Your task to perform on an android device: Search for the new steph curry shoes on Amazon. Image 0: 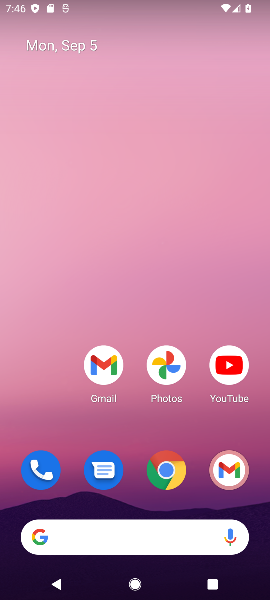
Step 0: click (114, 534)
Your task to perform on an android device: Search for the new steph curry shoes on Amazon. Image 1: 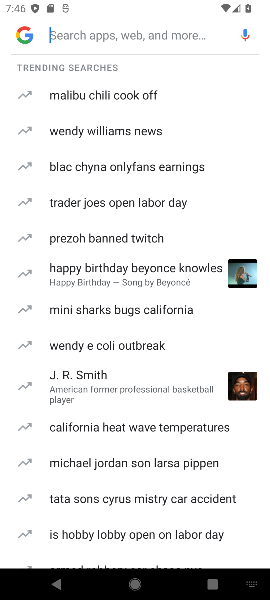
Step 1: type "amezon"
Your task to perform on an android device: Search for the new steph curry shoes on Amazon. Image 2: 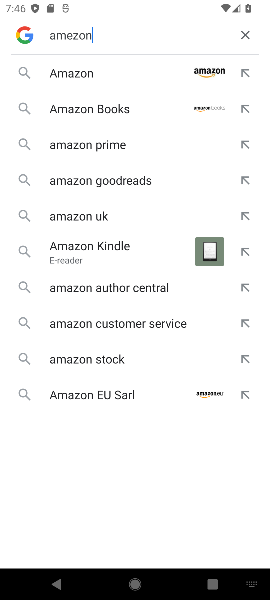
Step 2: click (67, 66)
Your task to perform on an android device: Search for the new steph curry shoes on Amazon. Image 3: 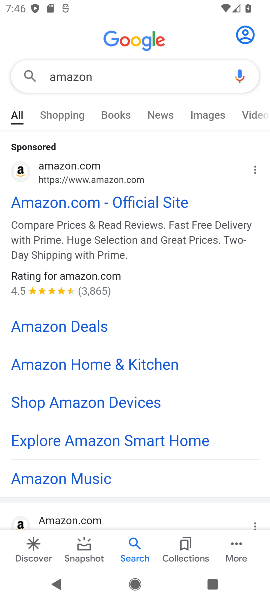
Step 3: click (65, 203)
Your task to perform on an android device: Search for the new steph curry shoes on Amazon. Image 4: 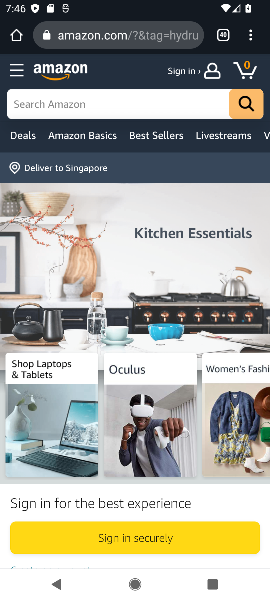
Step 4: click (115, 102)
Your task to perform on an android device: Search for the new steph curry shoes on Amazon. Image 5: 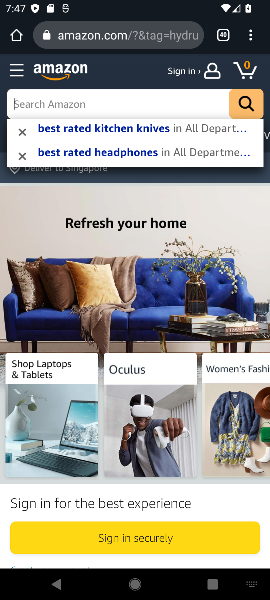
Step 5: type "new steph curry shoes"
Your task to perform on an android device: Search for the new steph curry shoes on Amazon. Image 6: 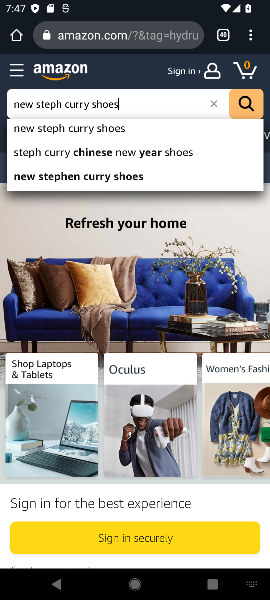
Step 6: click (136, 171)
Your task to perform on an android device: Search for the new steph curry shoes on Amazon. Image 7: 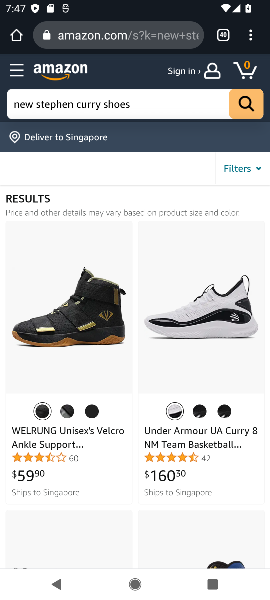
Step 7: task complete